Your task to perform on an android device: Go to CNN.com Image 0: 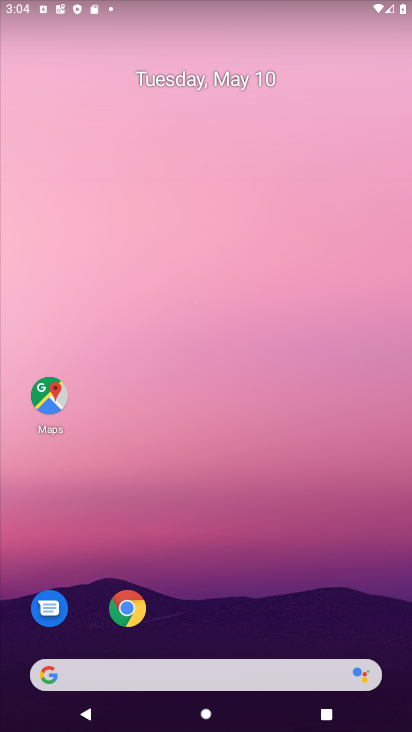
Step 0: click (125, 605)
Your task to perform on an android device: Go to CNN.com Image 1: 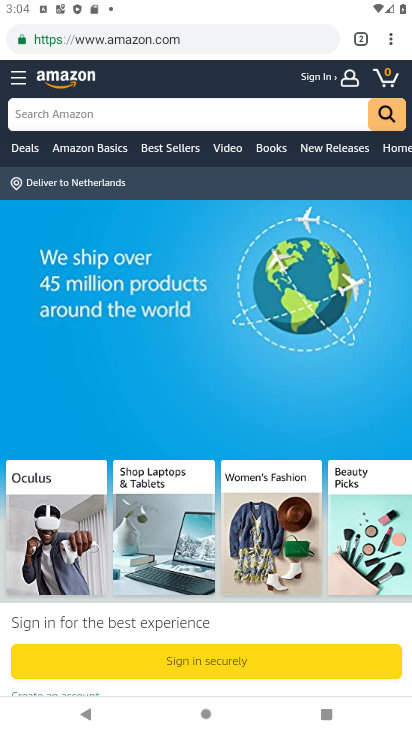
Step 1: click (184, 38)
Your task to perform on an android device: Go to CNN.com Image 2: 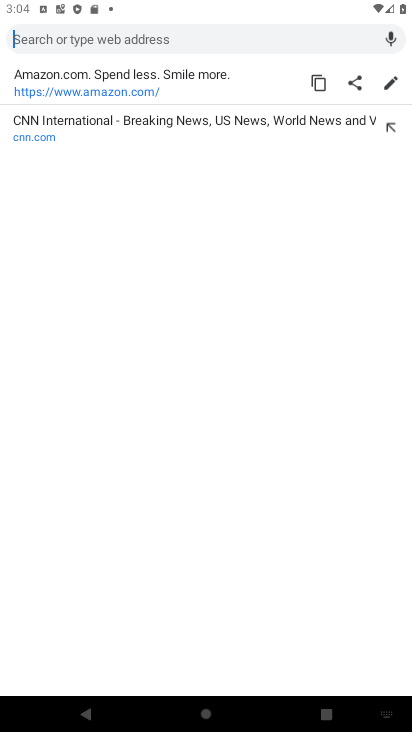
Step 2: type "cnn.com"
Your task to perform on an android device: Go to CNN.com Image 3: 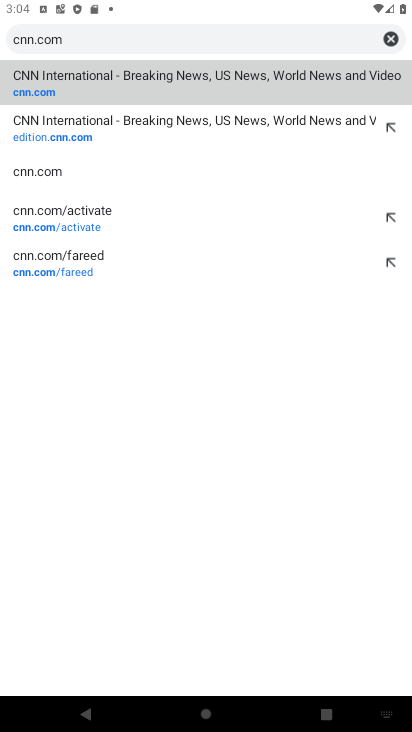
Step 3: click (28, 74)
Your task to perform on an android device: Go to CNN.com Image 4: 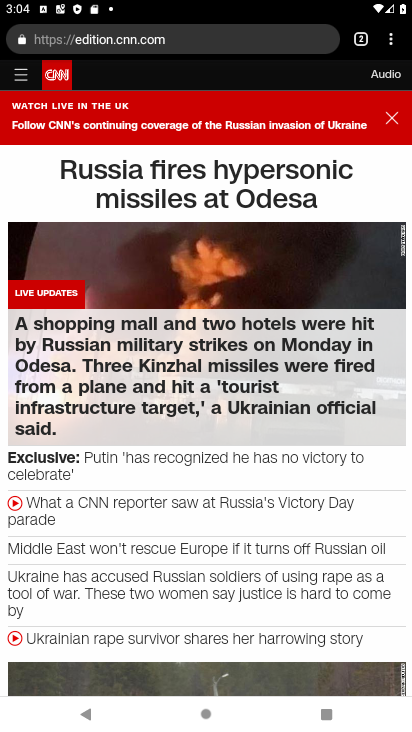
Step 4: task complete